Your task to perform on an android device: Open Chrome and go to the settings page Image 0: 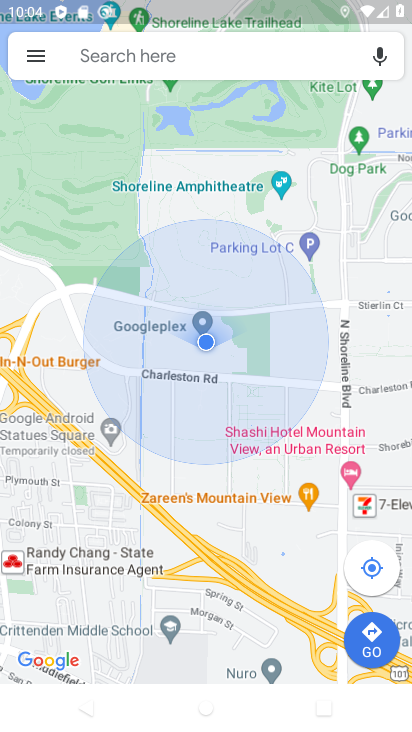
Step 0: press home button
Your task to perform on an android device: Open Chrome and go to the settings page Image 1: 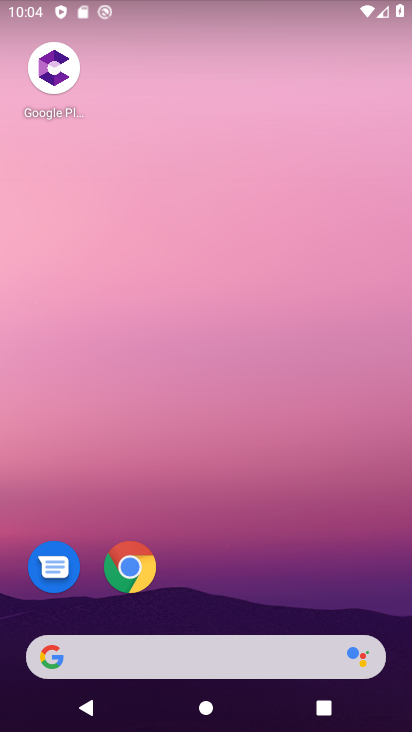
Step 1: click (146, 561)
Your task to perform on an android device: Open Chrome and go to the settings page Image 2: 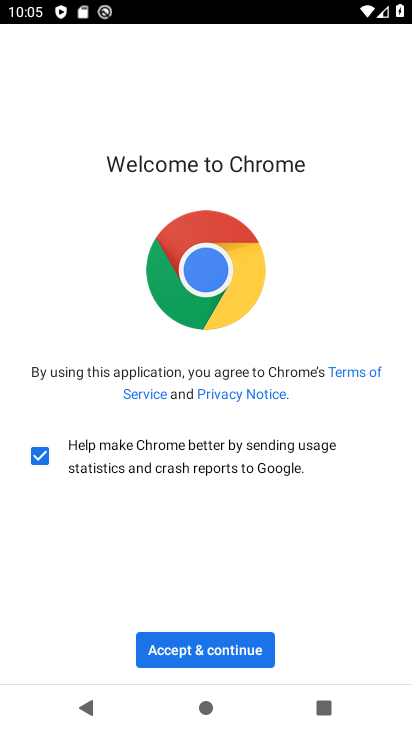
Step 2: click (203, 664)
Your task to perform on an android device: Open Chrome and go to the settings page Image 3: 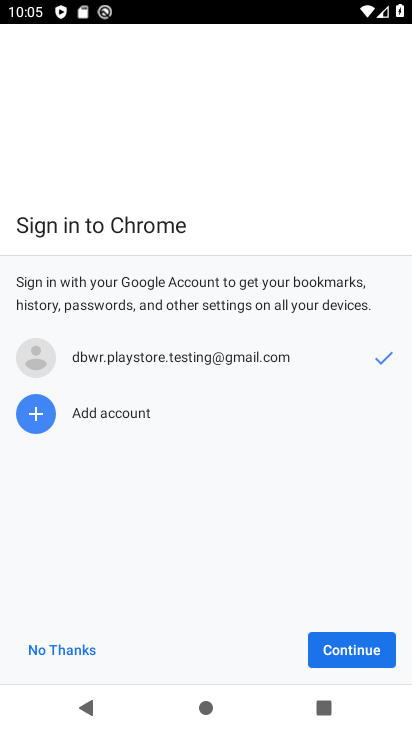
Step 3: click (371, 657)
Your task to perform on an android device: Open Chrome and go to the settings page Image 4: 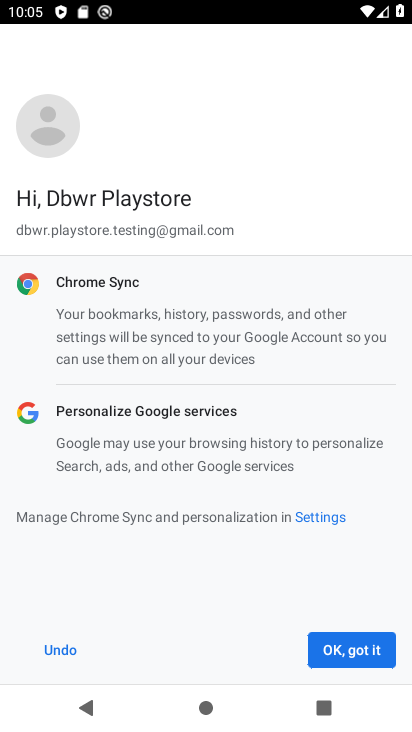
Step 4: click (340, 656)
Your task to perform on an android device: Open Chrome and go to the settings page Image 5: 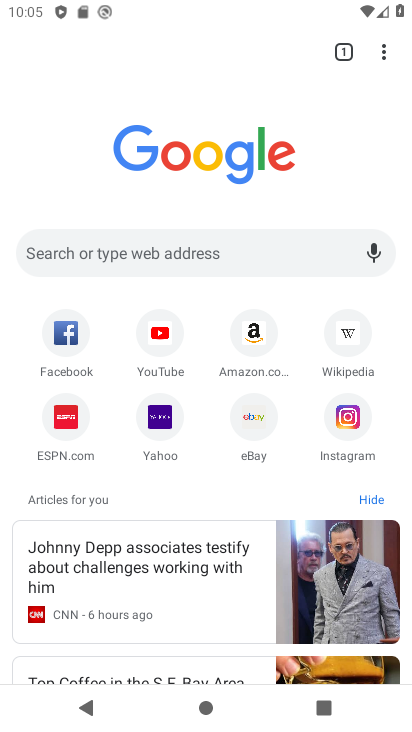
Step 5: click (384, 50)
Your task to perform on an android device: Open Chrome and go to the settings page Image 6: 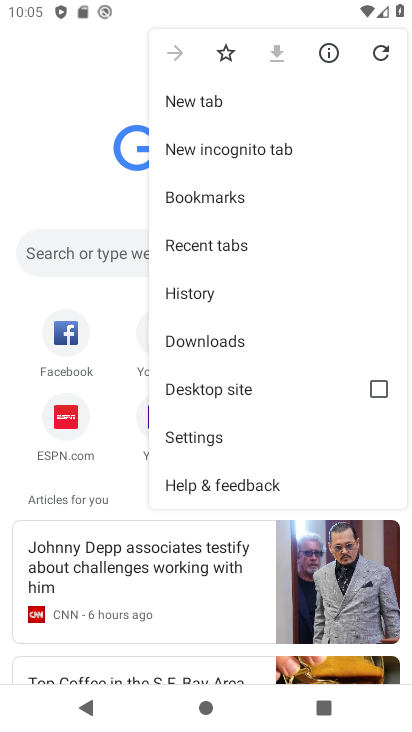
Step 6: click (253, 439)
Your task to perform on an android device: Open Chrome and go to the settings page Image 7: 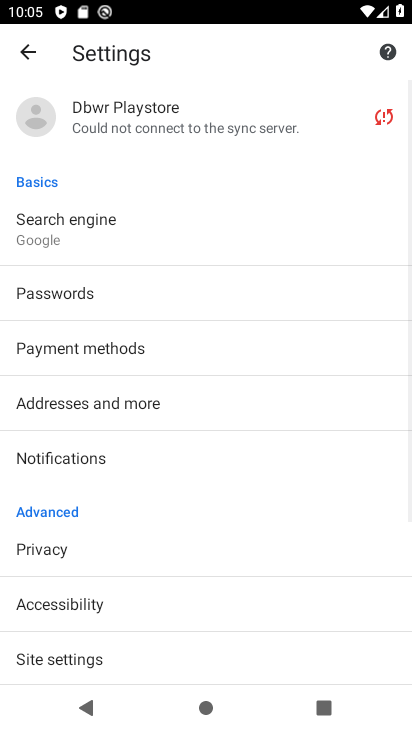
Step 7: task complete